Your task to perform on an android device: Open Google Chrome and open the bookmarks view Image 0: 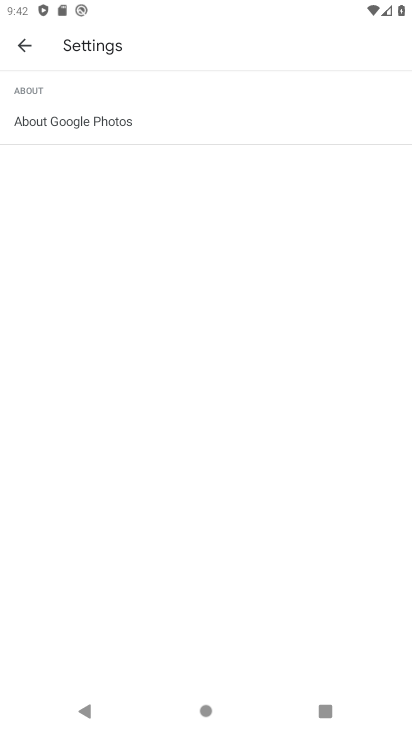
Step 0: press home button
Your task to perform on an android device: Open Google Chrome and open the bookmarks view Image 1: 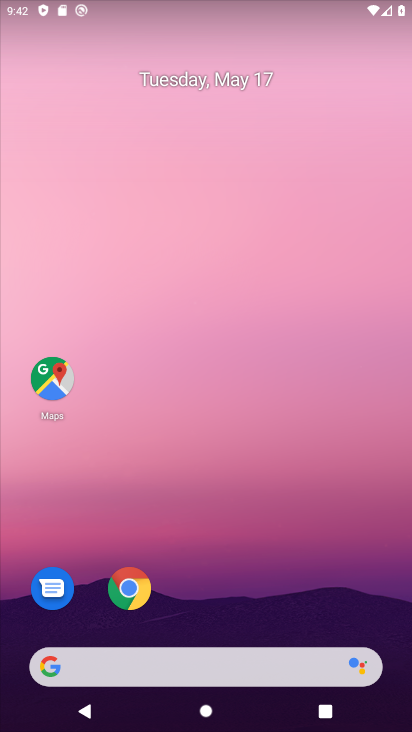
Step 1: click (132, 591)
Your task to perform on an android device: Open Google Chrome and open the bookmarks view Image 2: 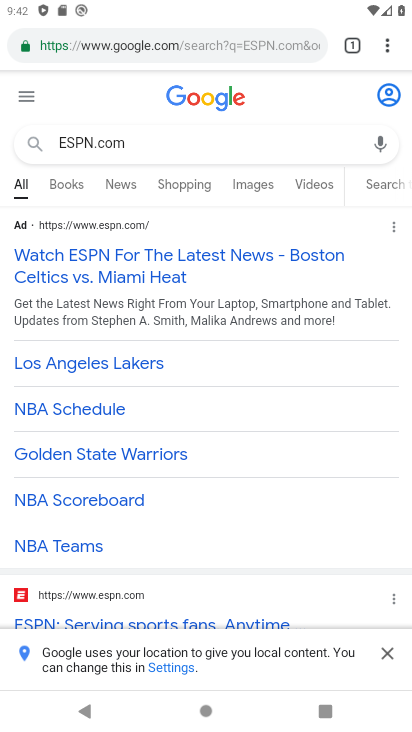
Step 2: click (389, 53)
Your task to perform on an android device: Open Google Chrome and open the bookmarks view Image 3: 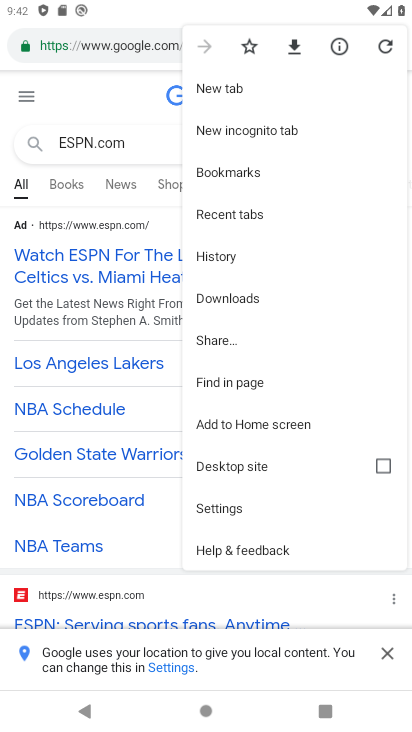
Step 3: click (232, 170)
Your task to perform on an android device: Open Google Chrome and open the bookmarks view Image 4: 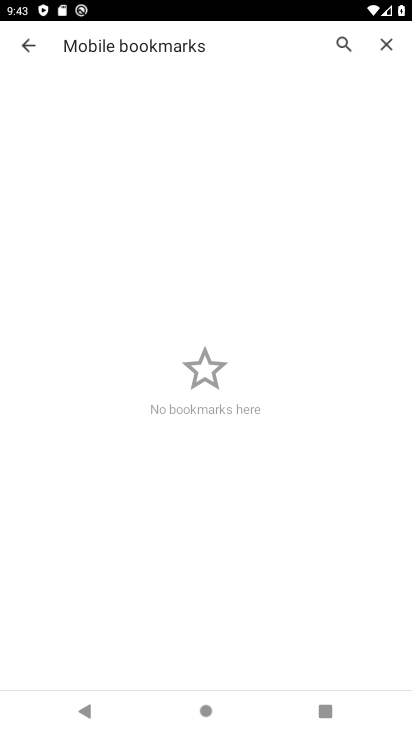
Step 4: task complete